Your task to perform on an android device: Go to Wikipedia Image 0: 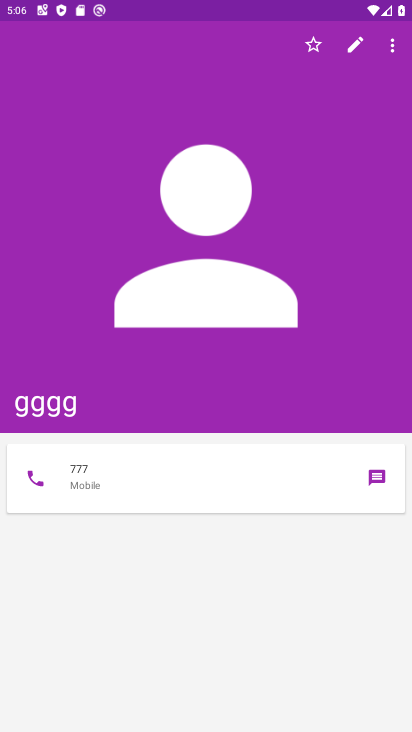
Step 0: press home button
Your task to perform on an android device: Go to Wikipedia Image 1: 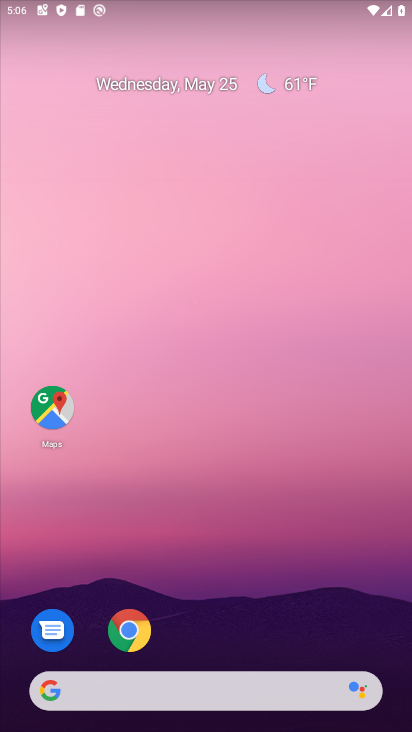
Step 1: click (132, 627)
Your task to perform on an android device: Go to Wikipedia Image 2: 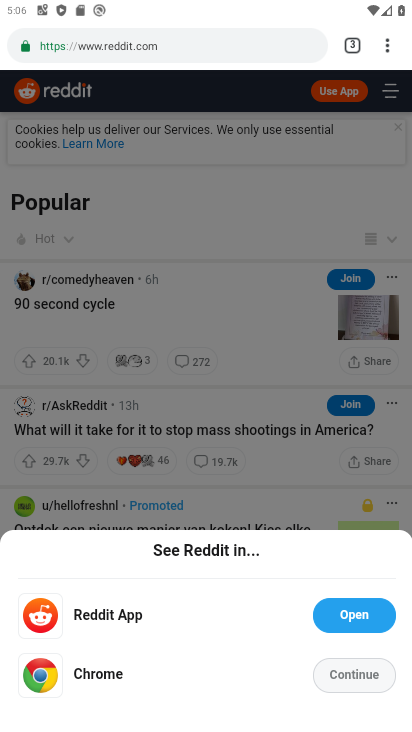
Step 2: click (339, 41)
Your task to perform on an android device: Go to Wikipedia Image 3: 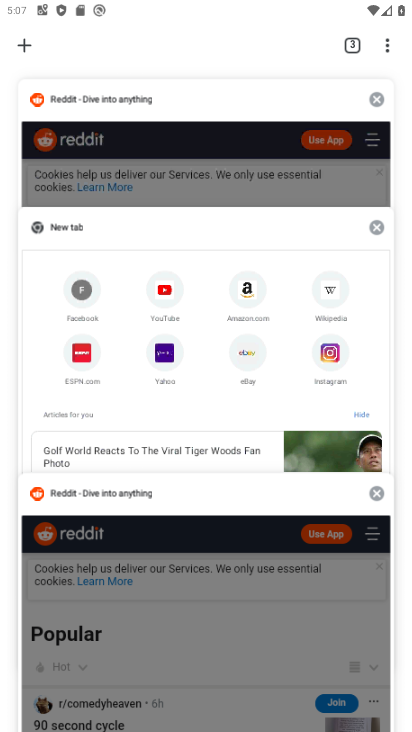
Step 3: click (25, 39)
Your task to perform on an android device: Go to Wikipedia Image 4: 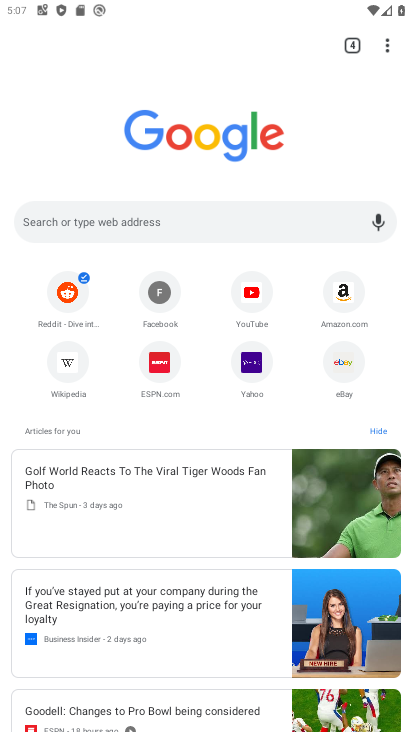
Step 4: click (56, 367)
Your task to perform on an android device: Go to Wikipedia Image 5: 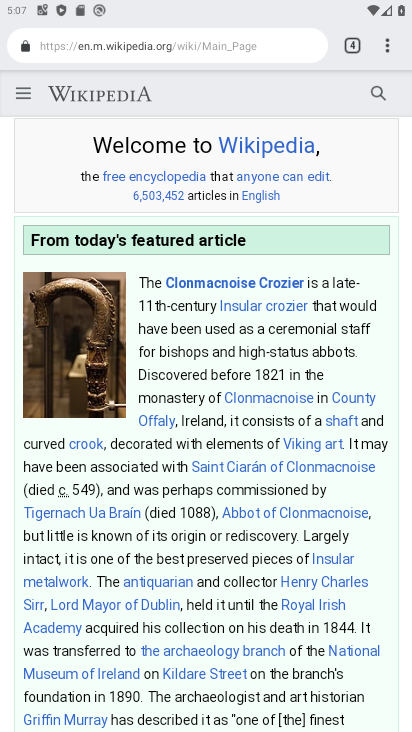
Step 5: task complete